Your task to perform on an android device: Go to sound settings Image 0: 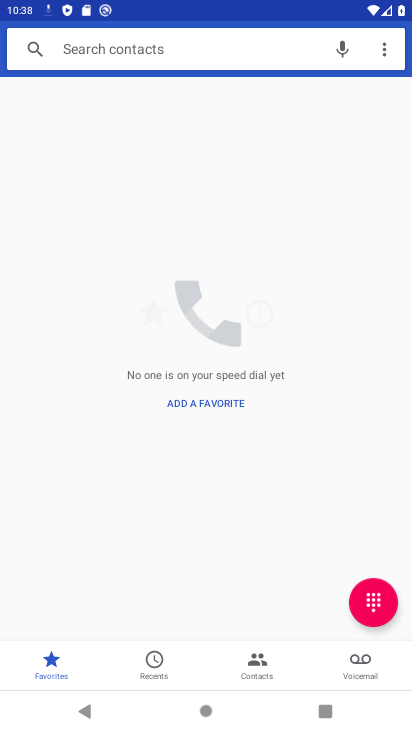
Step 0: press home button
Your task to perform on an android device: Go to sound settings Image 1: 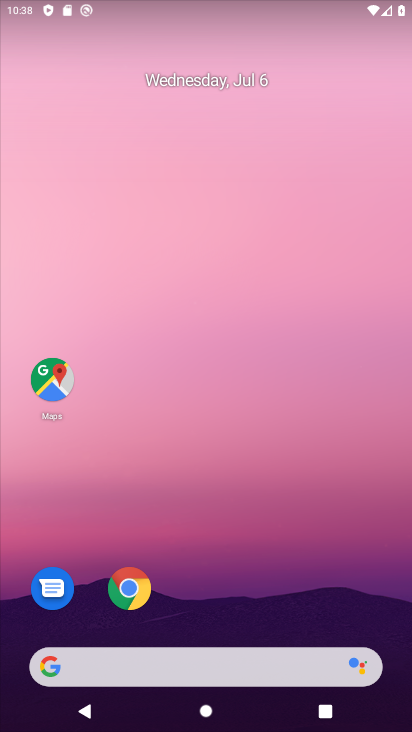
Step 1: drag from (242, 700) to (232, 495)
Your task to perform on an android device: Go to sound settings Image 2: 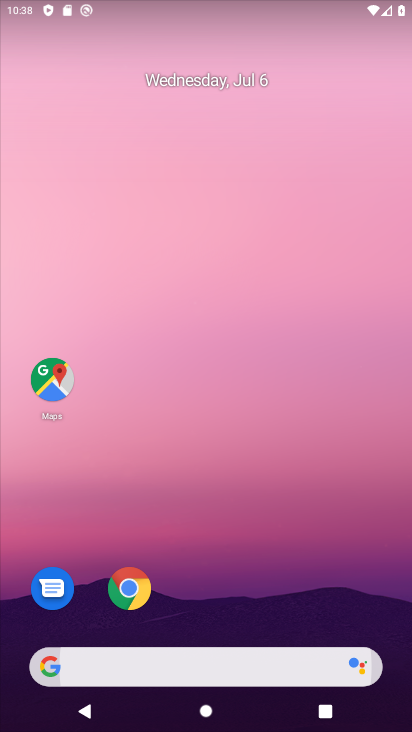
Step 2: click (232, 101)
Your task to perform on an android device: Go to sound settings Image 3: 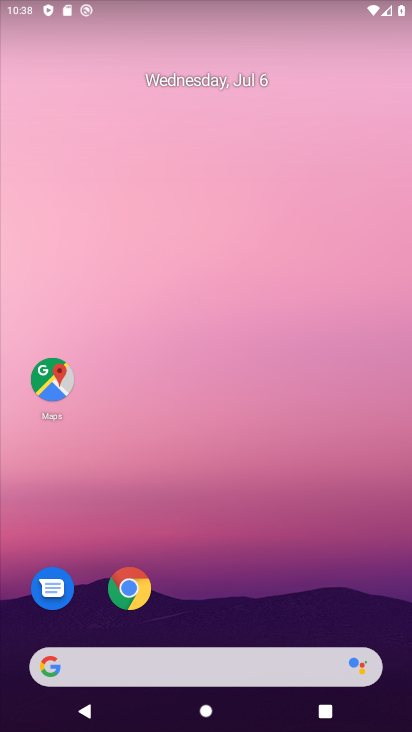
Step 3: drag from (246, 713) to (239, 604)
Your task to perform on an android device: Go to sound settings Image 4: 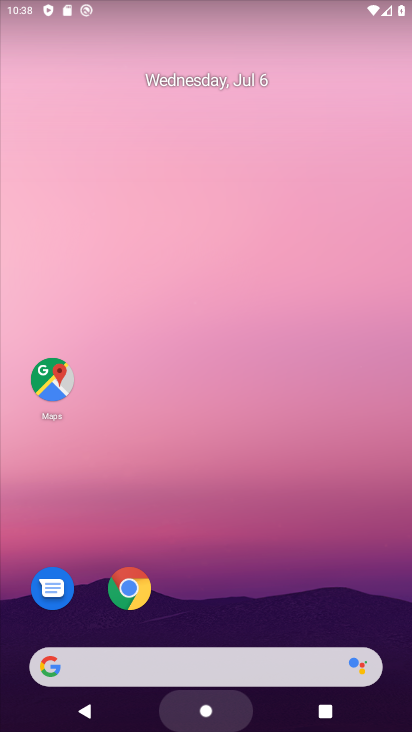
Step 4: drag from (237, 188) to (237, 53)
Your task to perform on an android device: Go to sound settings Image 5: 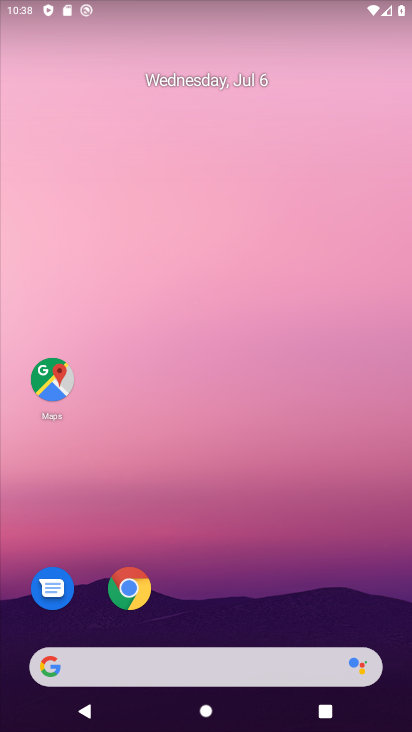
Step 5: drag from (252, 728) to (245, 631)
Your task to perform on an android device: Go to sound settings Image 6: 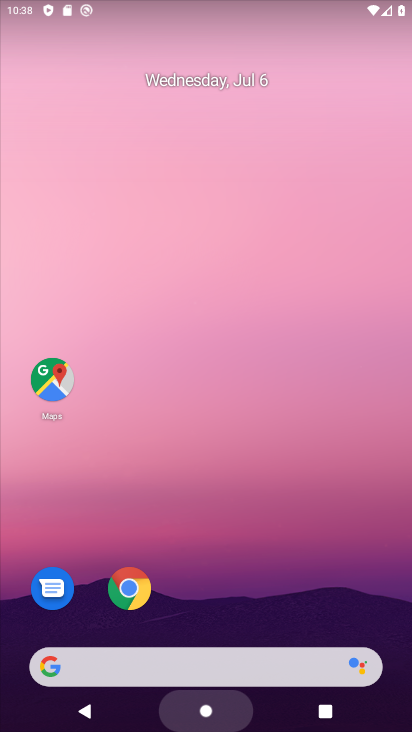
Step 6: click (267, 195)
Your task to perform on an android device: Go to sound settings Image 7: 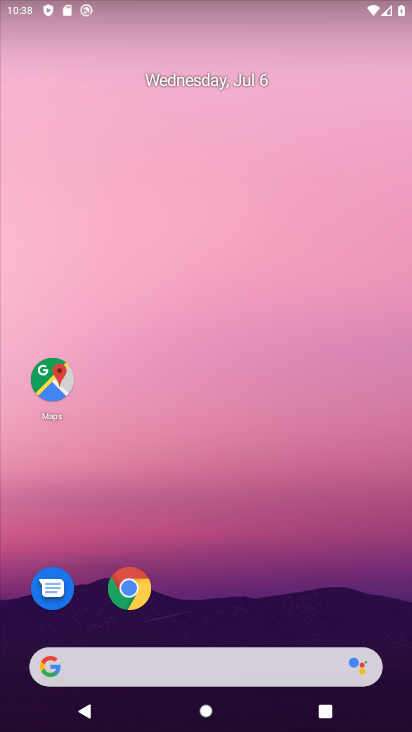
Step 7: drag from (262, 729) to (243, 53)
Your task to perform on an android device: Go to sound settings Image 8: 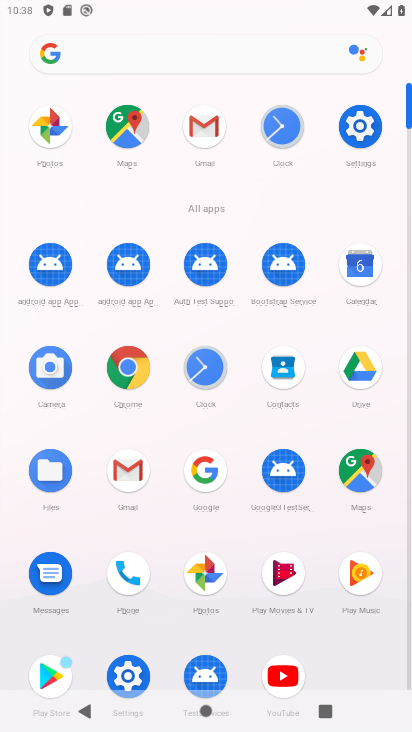
Step 8: click (356, 120)
Your task to perform on an android device: Go to sound settings Image 9: 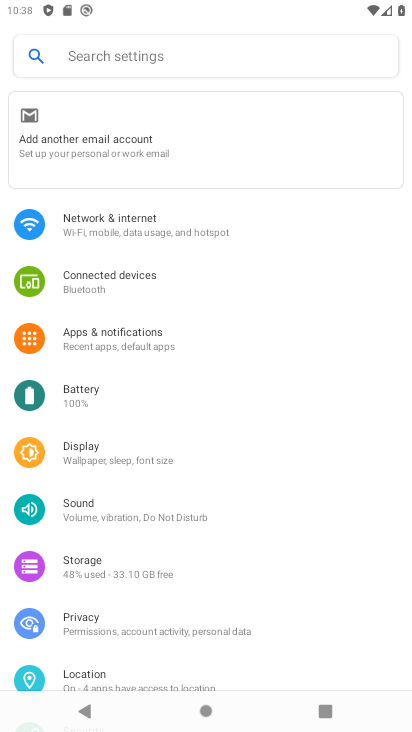
Step 9: click (77, 512)
Your task to perform on an android device: Go to sound settings Image 10: 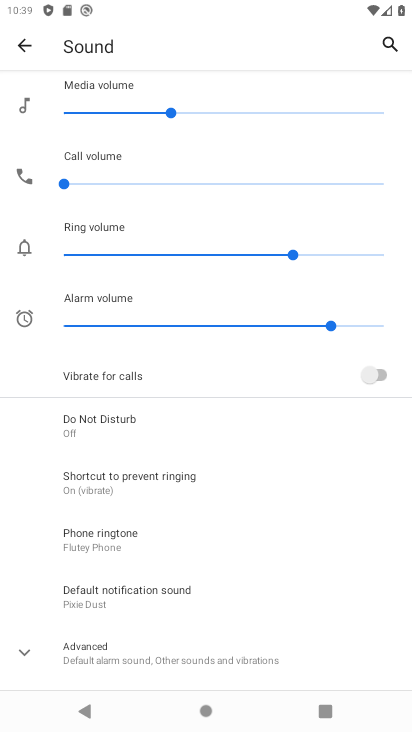
Step 10: task complete